Your task to perform on an android device: change the clock display to digital Image 0: 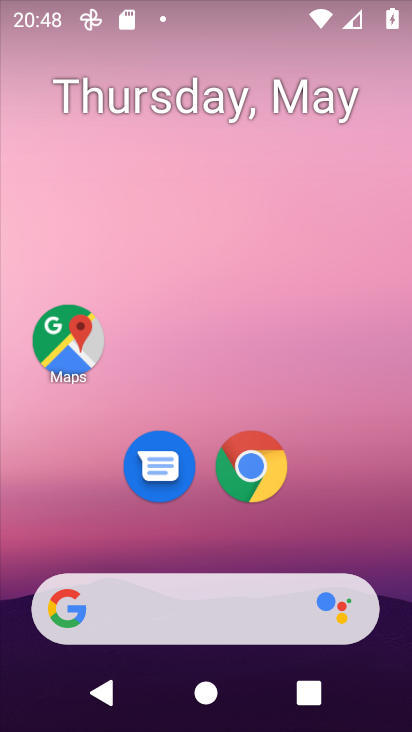
Step 0: drag from (371, 542) to (327, 112)
Your task to perform on an android device: change the clock display to digital Image 1: 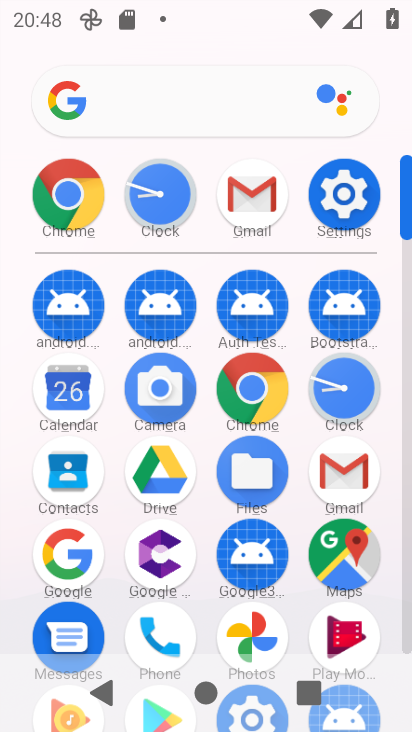
Step 1: click (339, 378)
Your task to perform on an android device: change the clock display to digital Image 2: 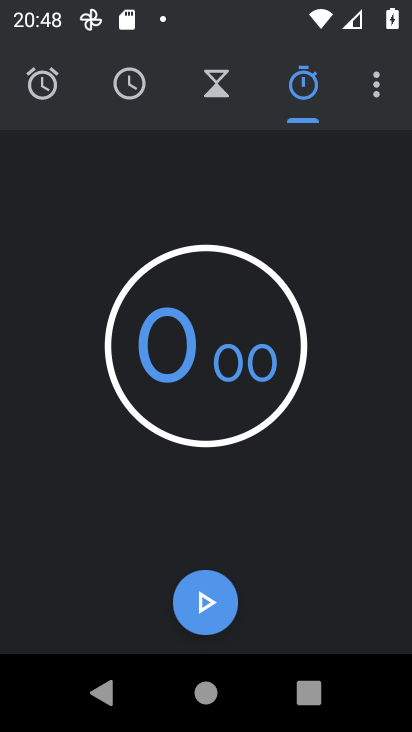
Step 2: click (369, 87)
Your task to perform on an android device: change the clock display to digital Image 3: 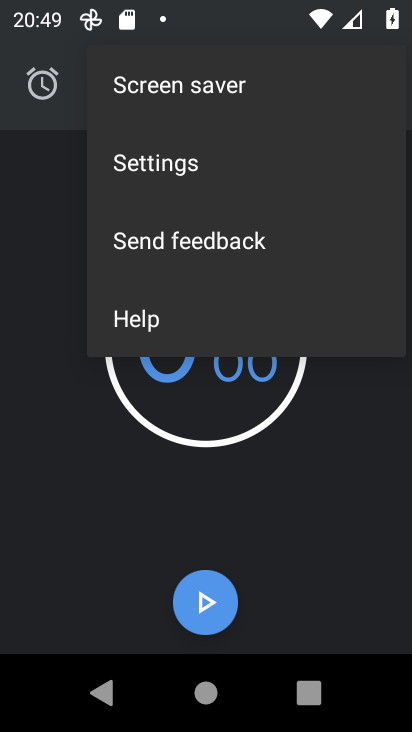
Step 3: click (222, 176)
Your task to perform on an android device: change the clock display to digital Image 4: 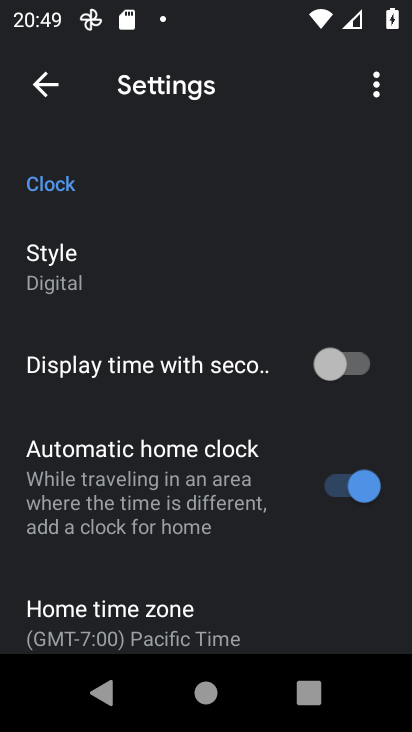
Step 4: task complete